Your task to perform on an android device: Open network settings Image 0: 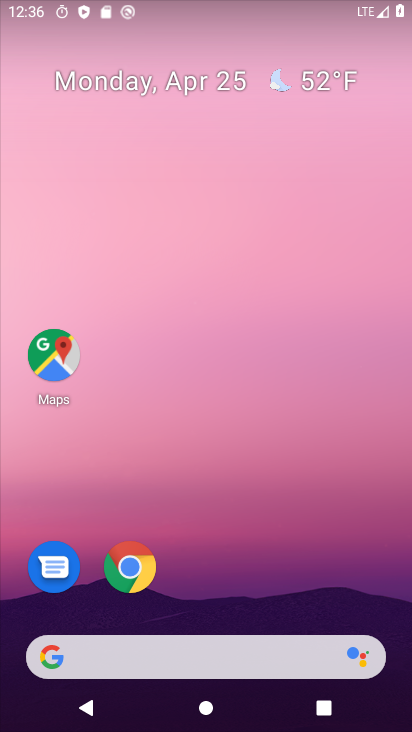
Step 0: drag from (267, 584) to (276, 1)
Your task to perform on an android device: Open network settings Image 1: 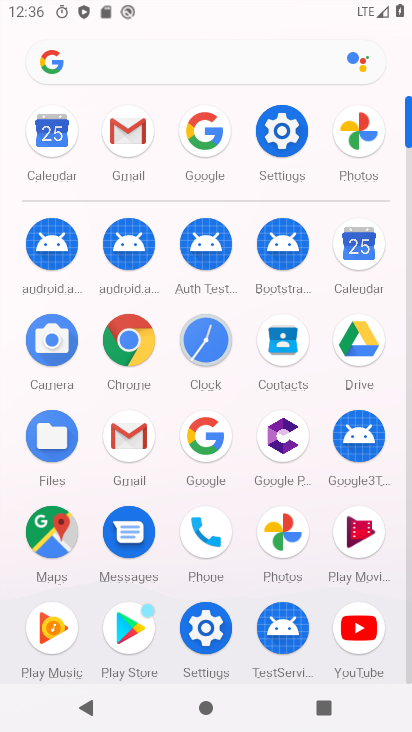
Step 1: click (286, 122)
Your task to perform on an android device: Open network settings Image 2: 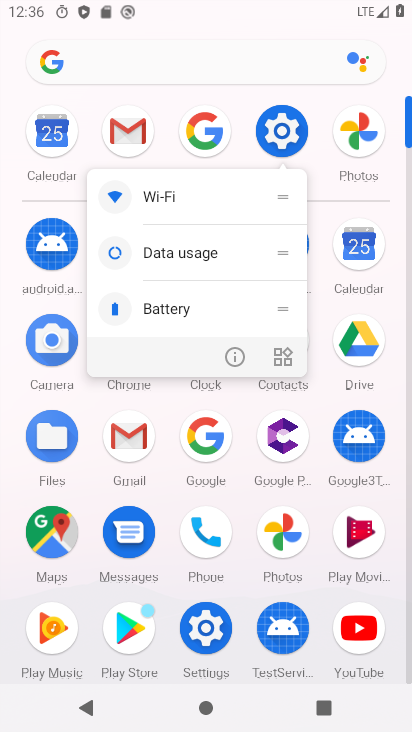
Step 2: click (286, 121)
Your task to perform on an android device: Open network settings Image 3: 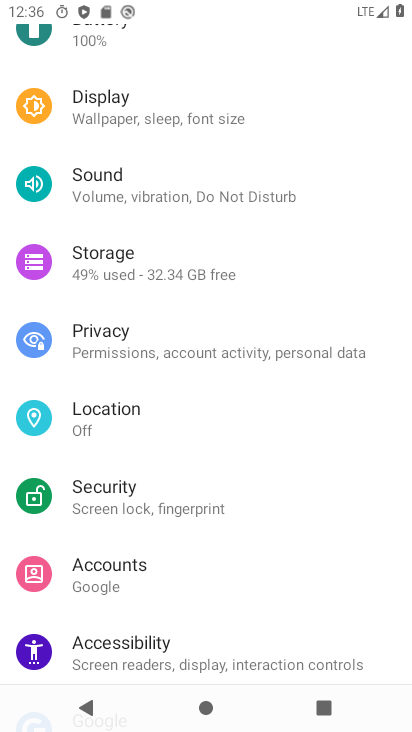
Step 3: drag from (278, 213) to (331, 600)
Your task to perform on an android device: Open network settings Image 4: 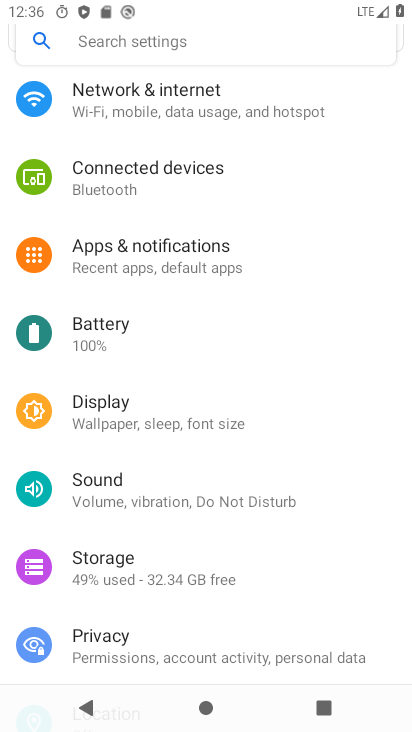
Step 4: click (262, 98)
Your task to perform on an android device: Open network settings Image 5: 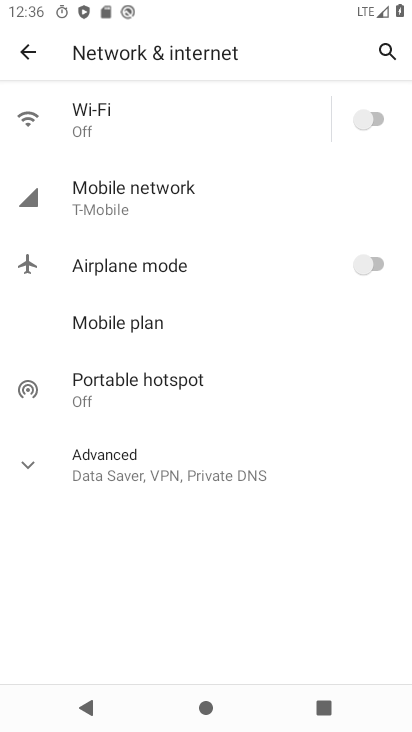
Step 5: task complete